Your task to perform on an android device: What is the recent news? Image 0: 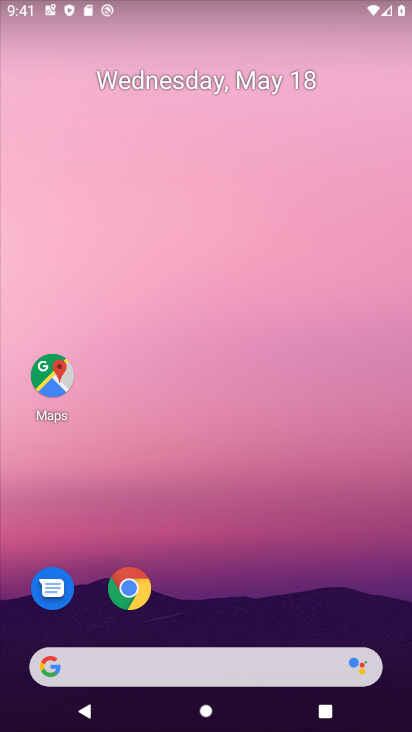
Step 0: drag from (216, 680) to (307, 50)
Your task to perform on an android device: What is the recent news? Image 1: 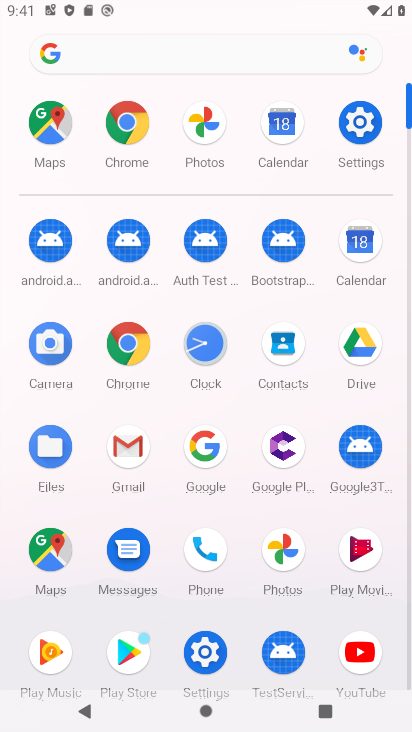
Step 1: click (150, 51)
Your task to perform on an android device: What is the recent news? Image 2: 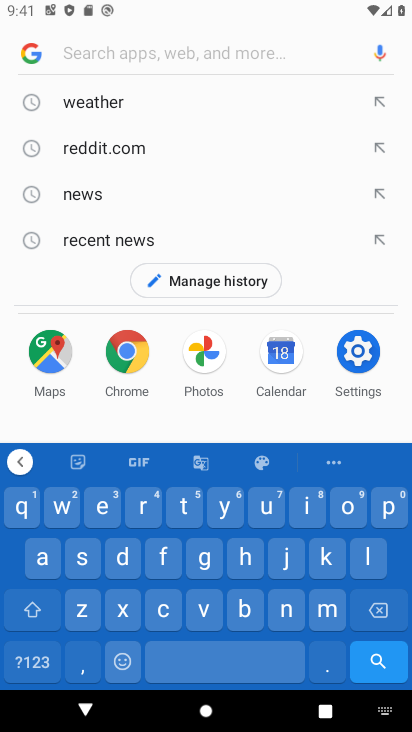
Step 2: click (124, 239)
Your task to perform on an android device: What is the recent news? Image 3: 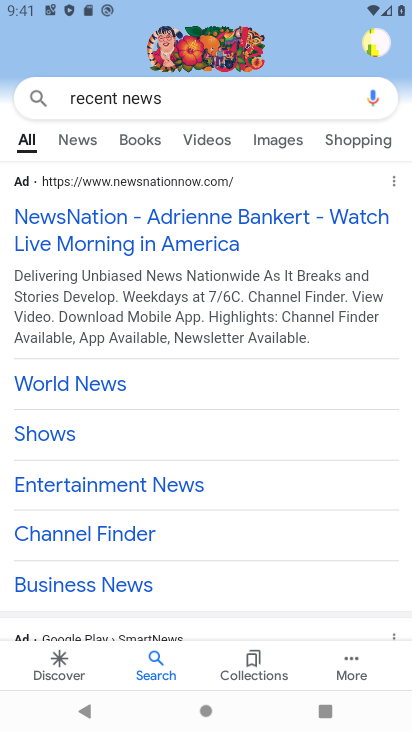
Step 3: task complete